Your task to perform on an android device: move an email to a new category in the gmail app Image 0: 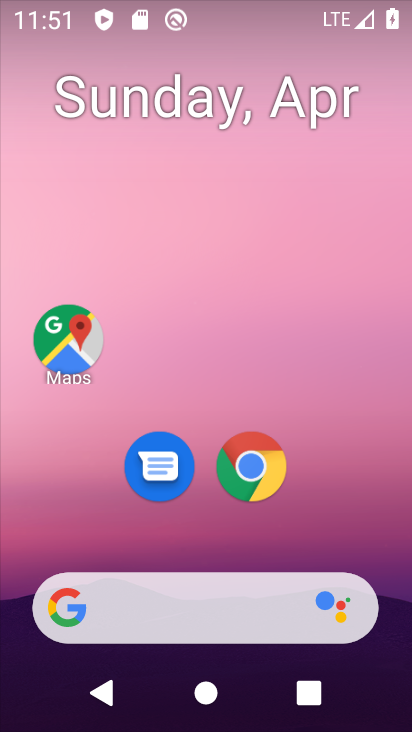
Step 0: drag from (376, 529) to (295, 50)
Your task to perform on an android device: move an email to a new category in the gmail app Image 1: 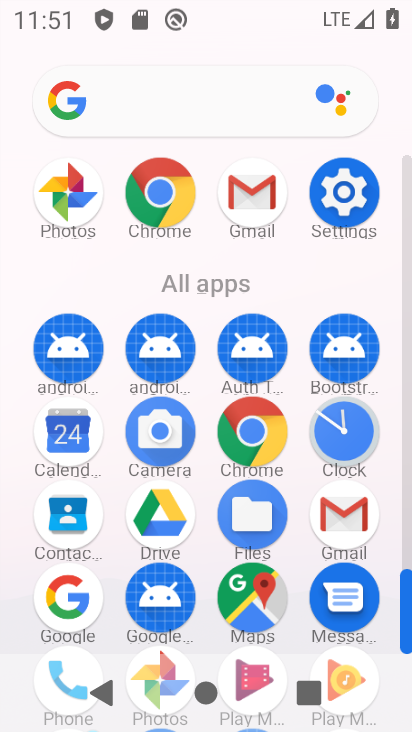
Step 1: click (263, 210)
Your task to perform on an android device: move an email to a new category in the gmail app Image 2: 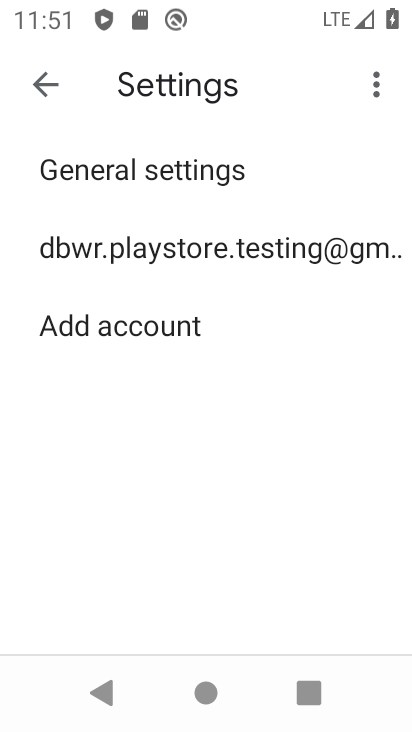
Step 2: press back button
Your task to perform on an android device: move an email to a new category in the gmail app Image 3: 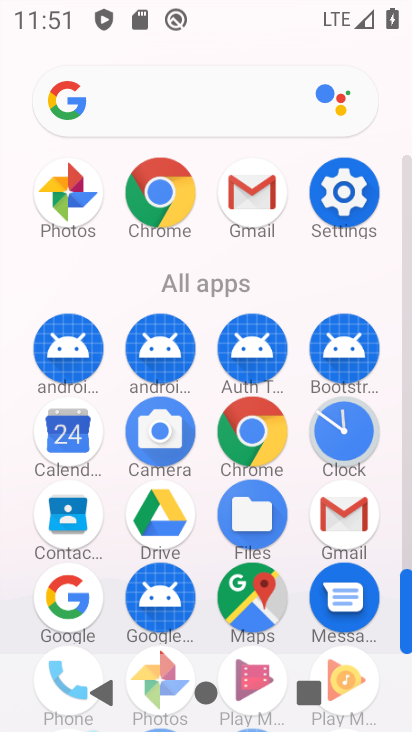
Step 3: click (278, 212)
Your task to perform on an android device: move an email to a new category in the gmail app Image 4: 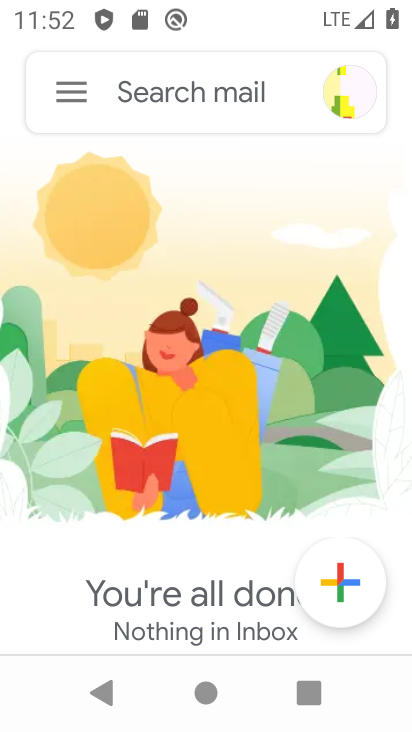
Step 4: task complete